Your task to perform on an android device: turn off improve location accuracy Image 0: 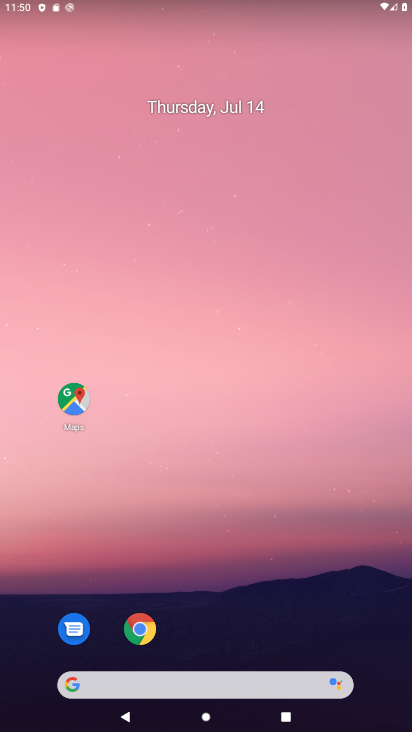
Step 0: drag from (281, 518) to (176, 61)
Your task to perform on an android device: turn off improve location accuracy Image 1: 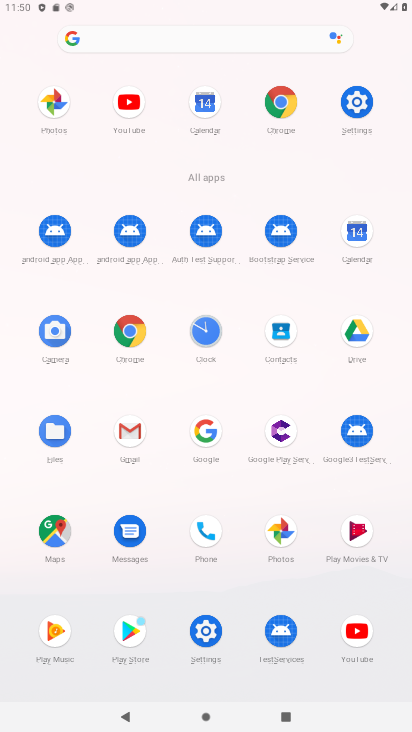
Step 1: click (362, 94)
Your task to perform on an android device: turn off improve location accuracy Image 2: 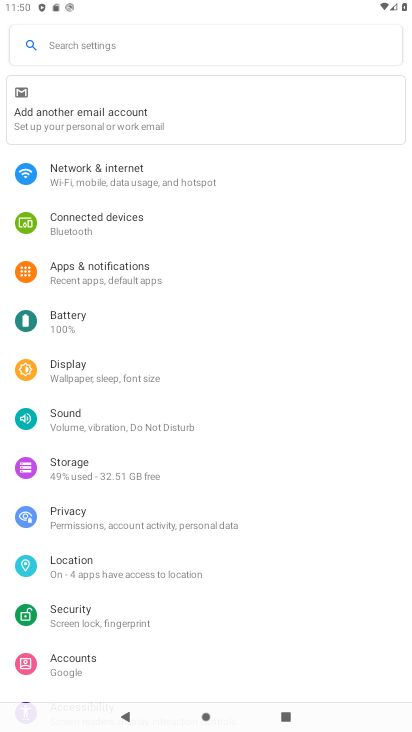
Step 2: click (82, 561)
Your task to perform on an android device: turn off improve location accuracy Image 3: 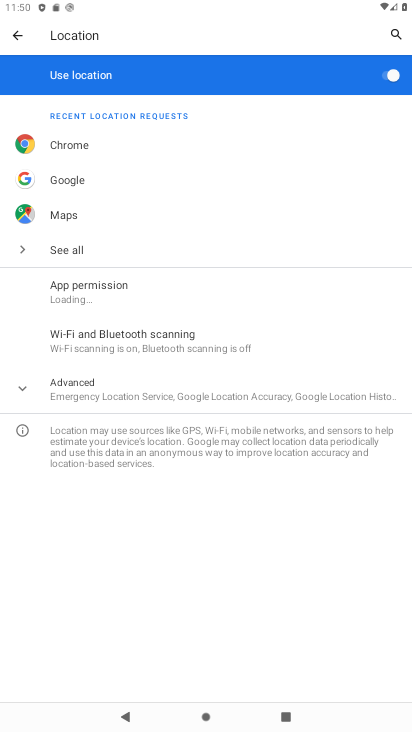
Step 3: click (120, 402)
Your task to perform on an android device: turn off improve location accuracy Image 4: 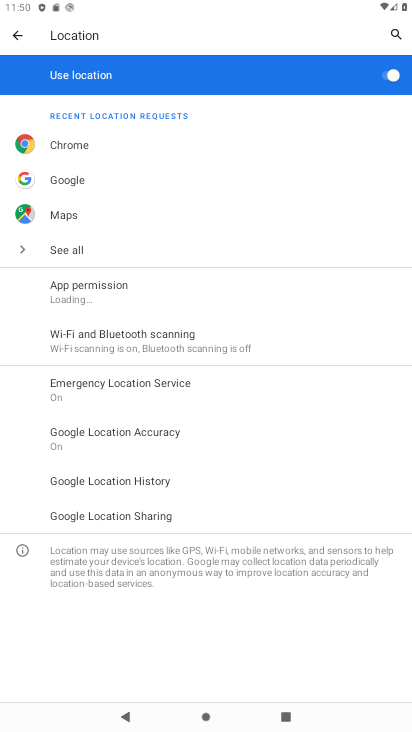
Step 4: click (150, 436)
Your task to perform on an android device: turn off improve location accuracy Image 5: 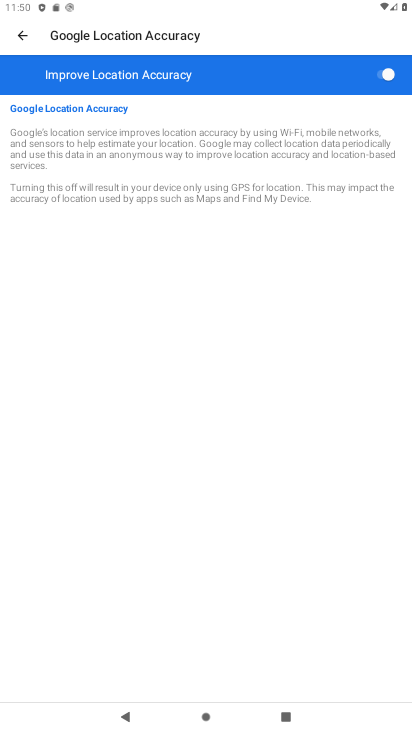
Step 5: click (383, 54)
Your task to perform on an android device: turn off improve location accuracy Image 6: 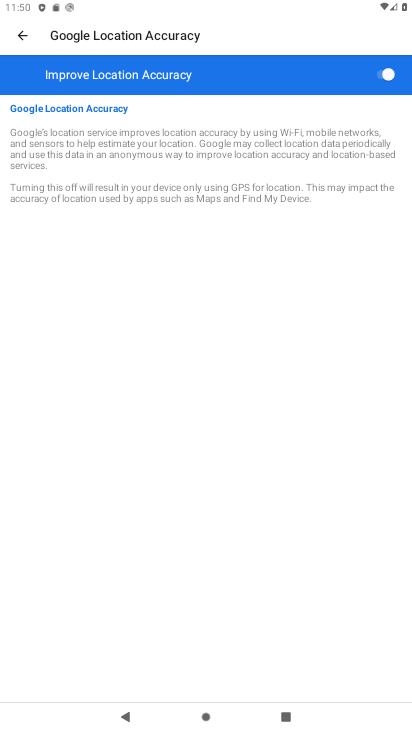
Step 6: click (383, 80)
Your task to perform on an android device: turn off improve location accuracy Image 7: 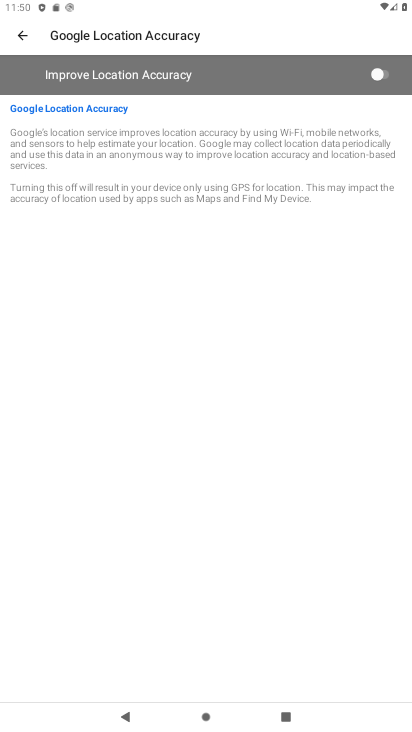
Step 7: task complete